Your task to perform on an android device: Open Google Chrome and click the shortcut for Amazon.com Image 0: 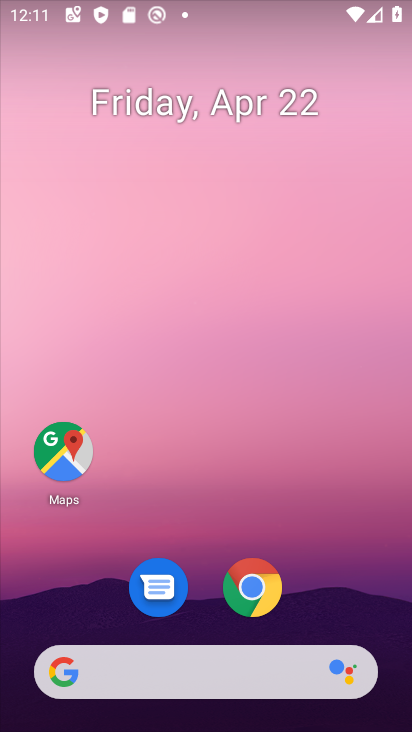
Step 0: click (67, 470)
Your task to perform on an android device: Open Google Chrome and click the shortcut for Amazon.com Image 1: 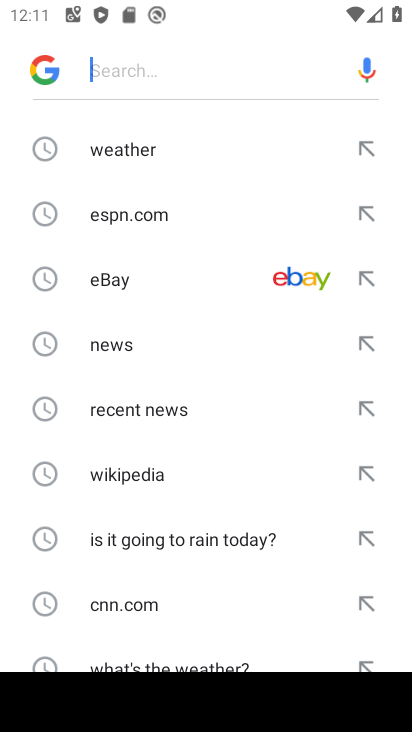
Step 1: press back button
Your task to perform on an android device: Open Google Chrome and click the shortcut for Amazon.com Image 2: 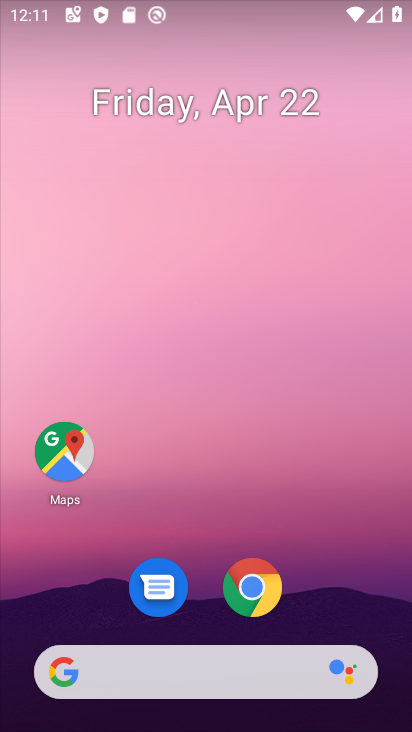
Step 2: click (250, 584)
Your task to perform on an android device: Open Google Chrome and click the shortcut for Amazon.com Image 3: 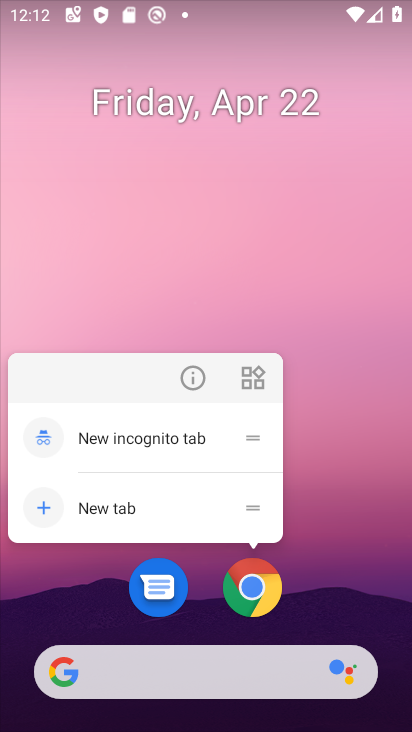
Step 3: click (265, 614)
Your task to perform on an android device: Open Google Chrome and click the shortcut for Amazon.com Image 4: 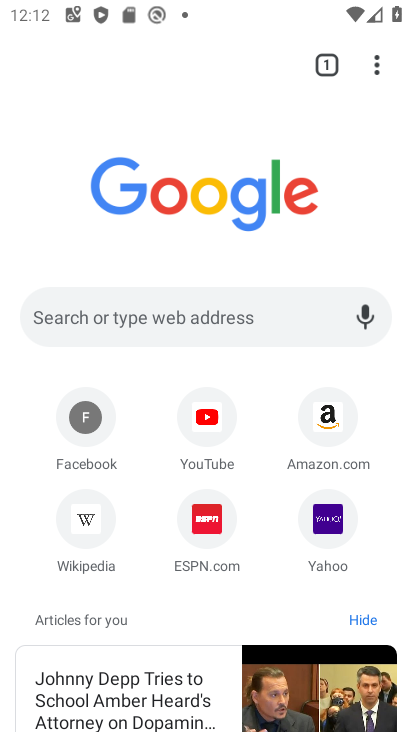
Step 4: click (327, 428)
Your task to perform on an android device: Open Google Chrome and click the shortcut for Amazon.com Image 5: 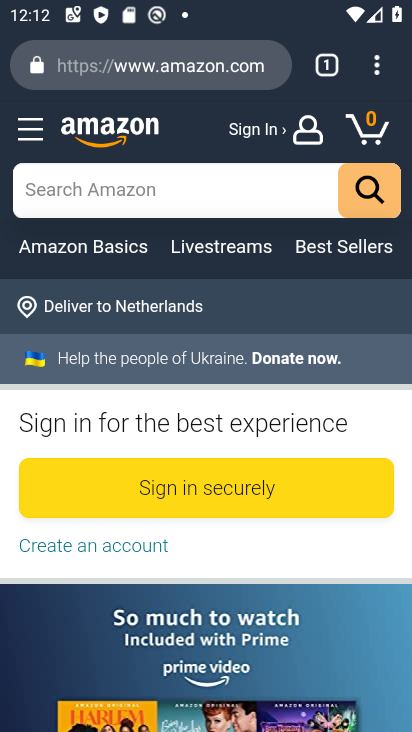
Step 5: task complete